Your task to perform on an android device: Open the stopwatch Image 0: 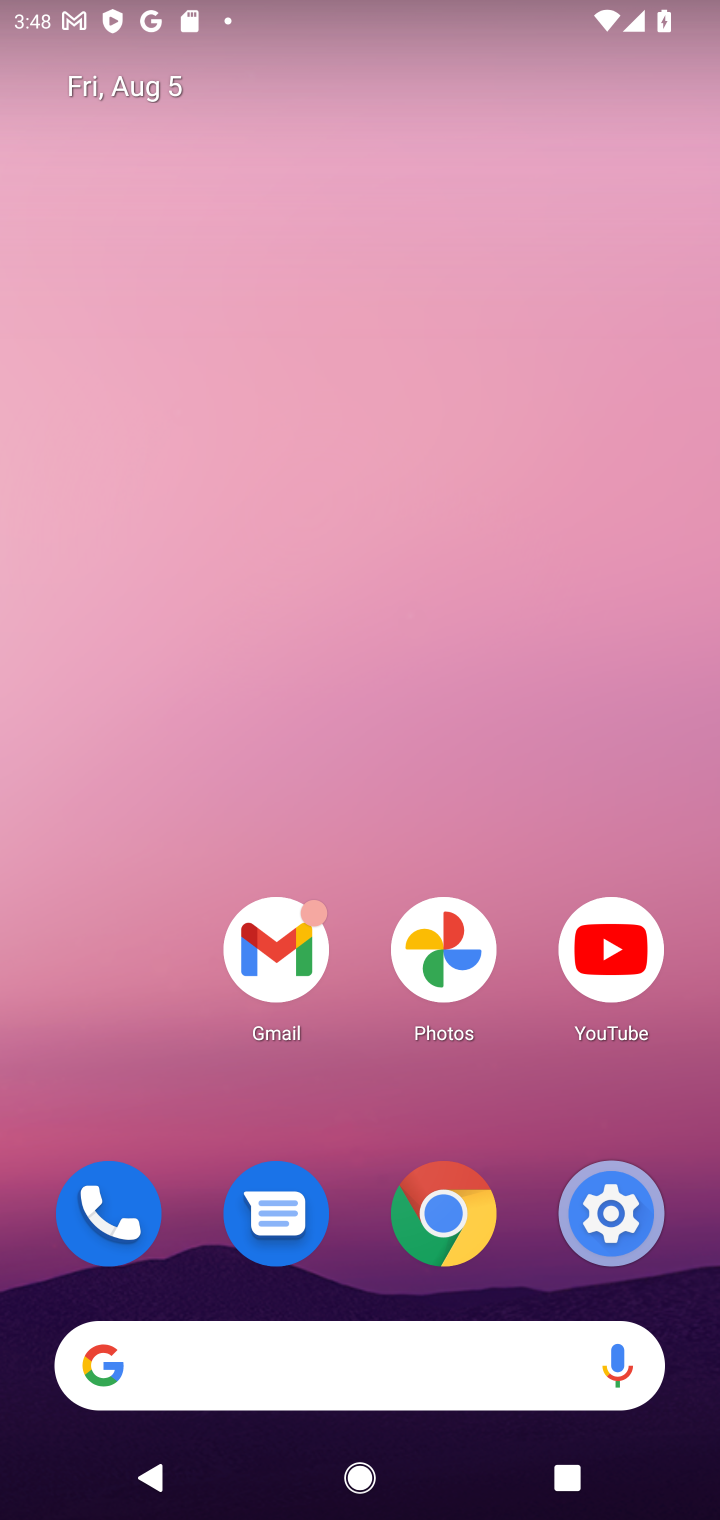
Step 0: drag from (215, 1301) to (308, 236)
Your task to perform on an android device: Open the stopwatch Image 1: 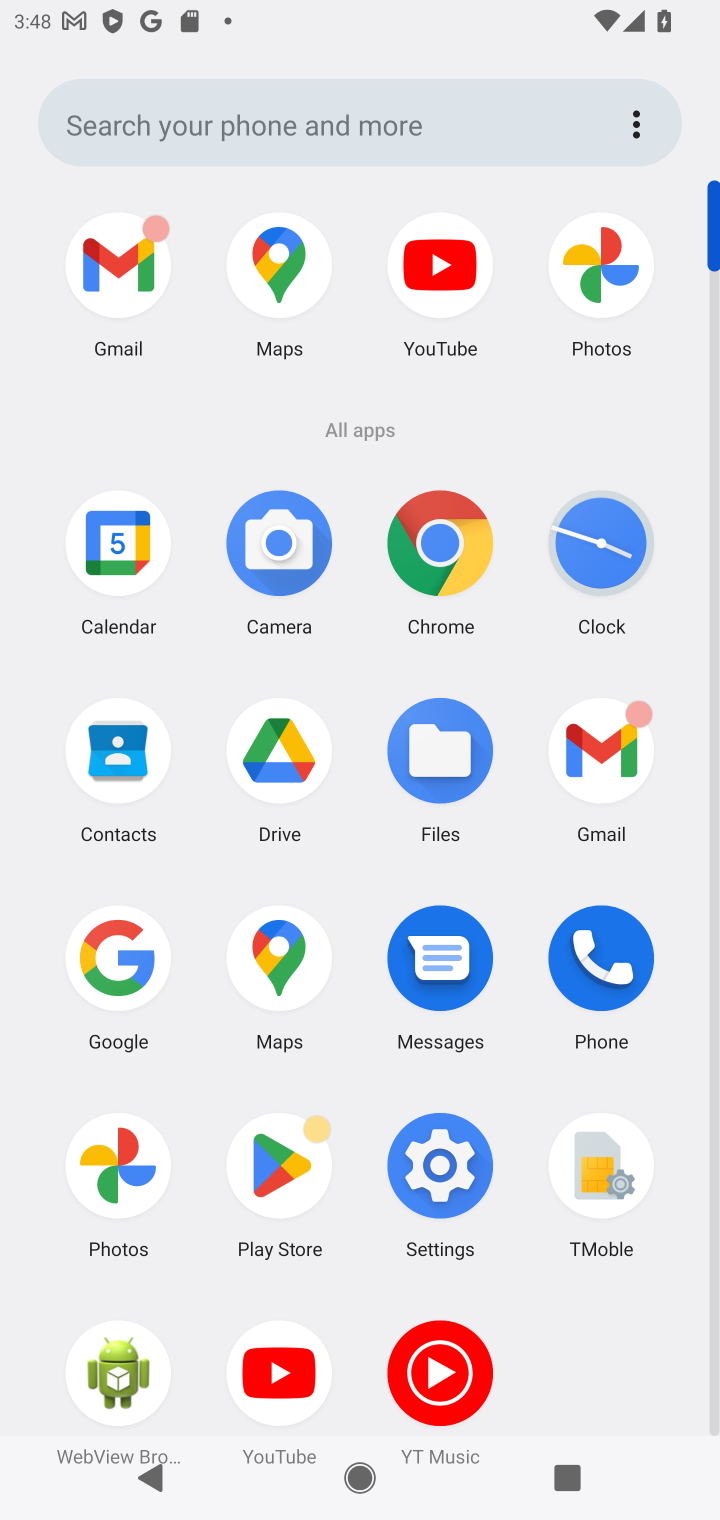
Step 1: click (619, 583)
Your task to perform on an android device: Open the stopwatch Image 2: 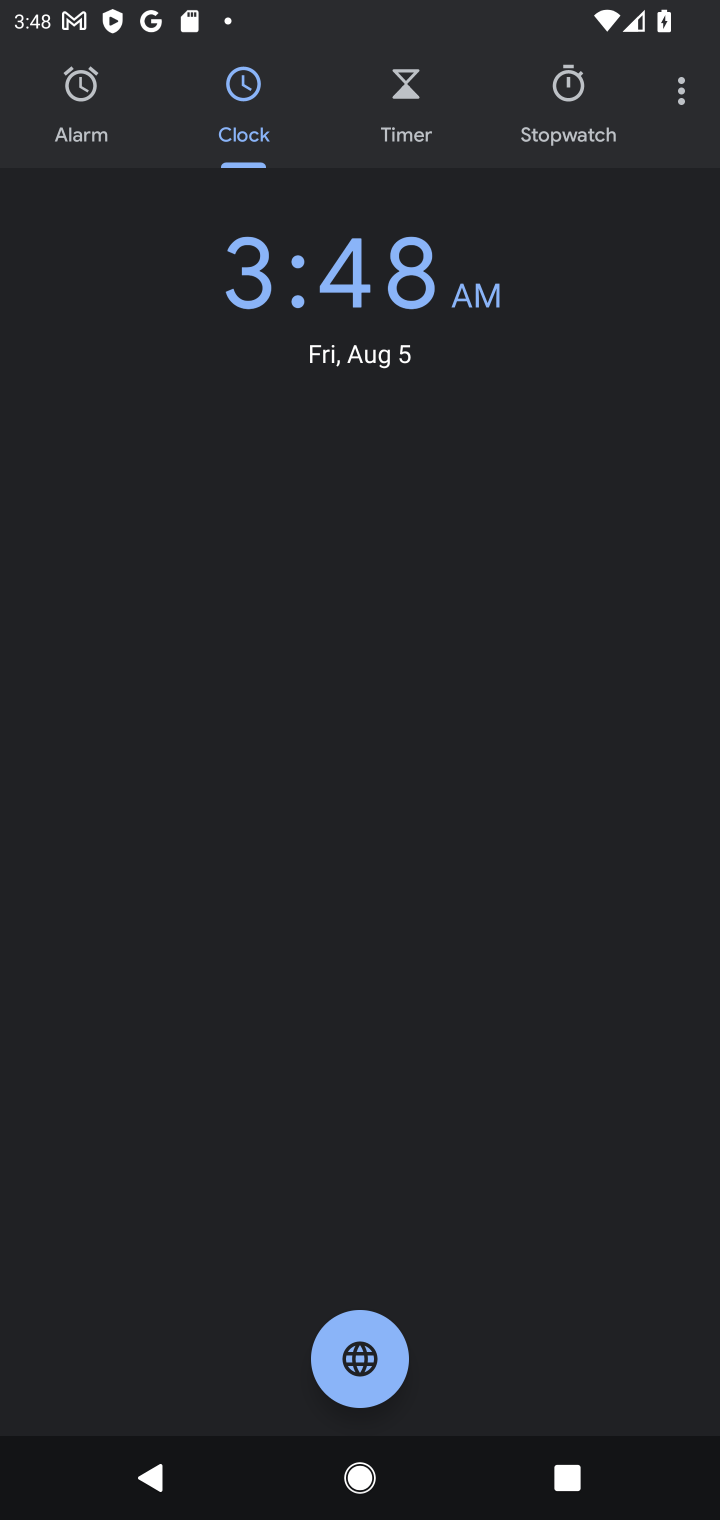
Step 2: click (701, 123)
Your task to perform on an android device: Open the stopwatch Image 3: 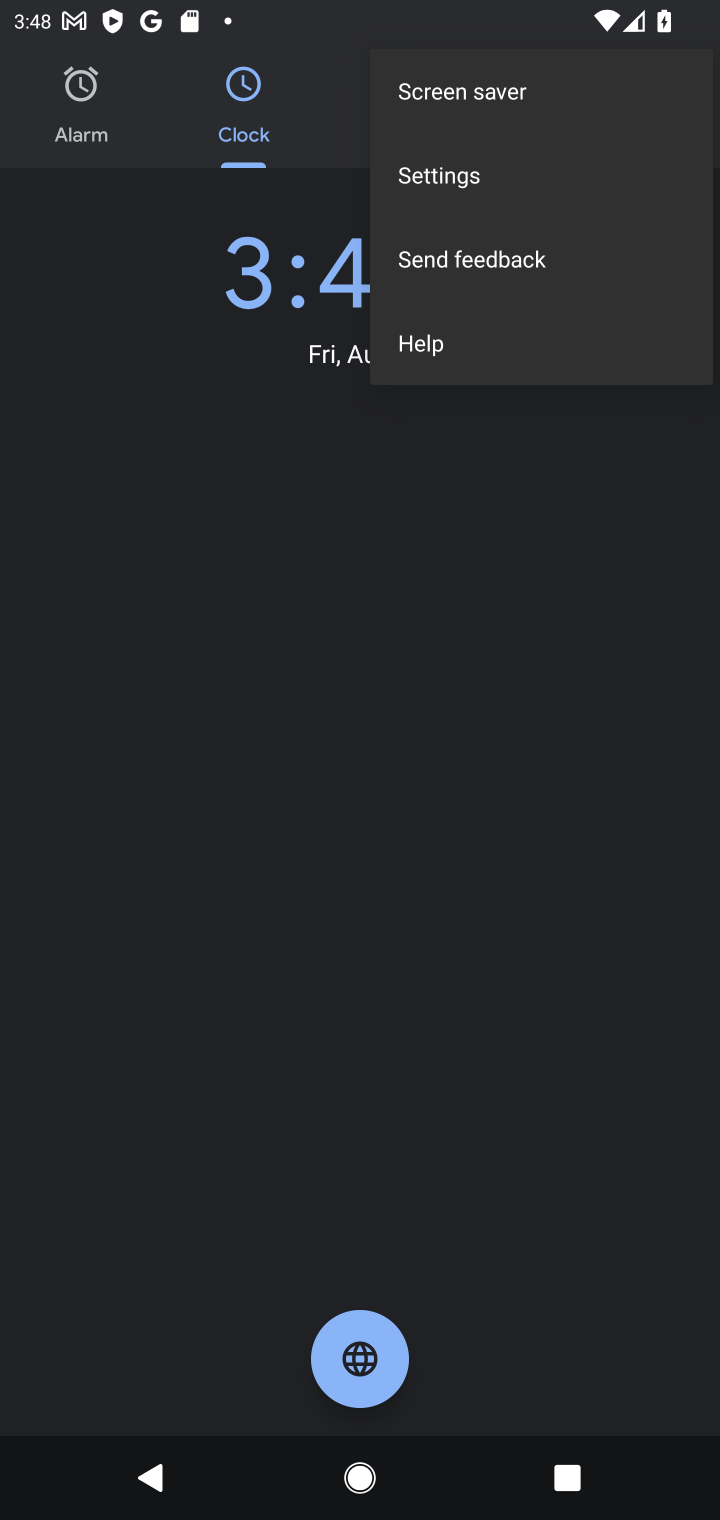
Step 3: click (430, 165)
Your task to perform on an android device: Open the stopwatch Image 4: 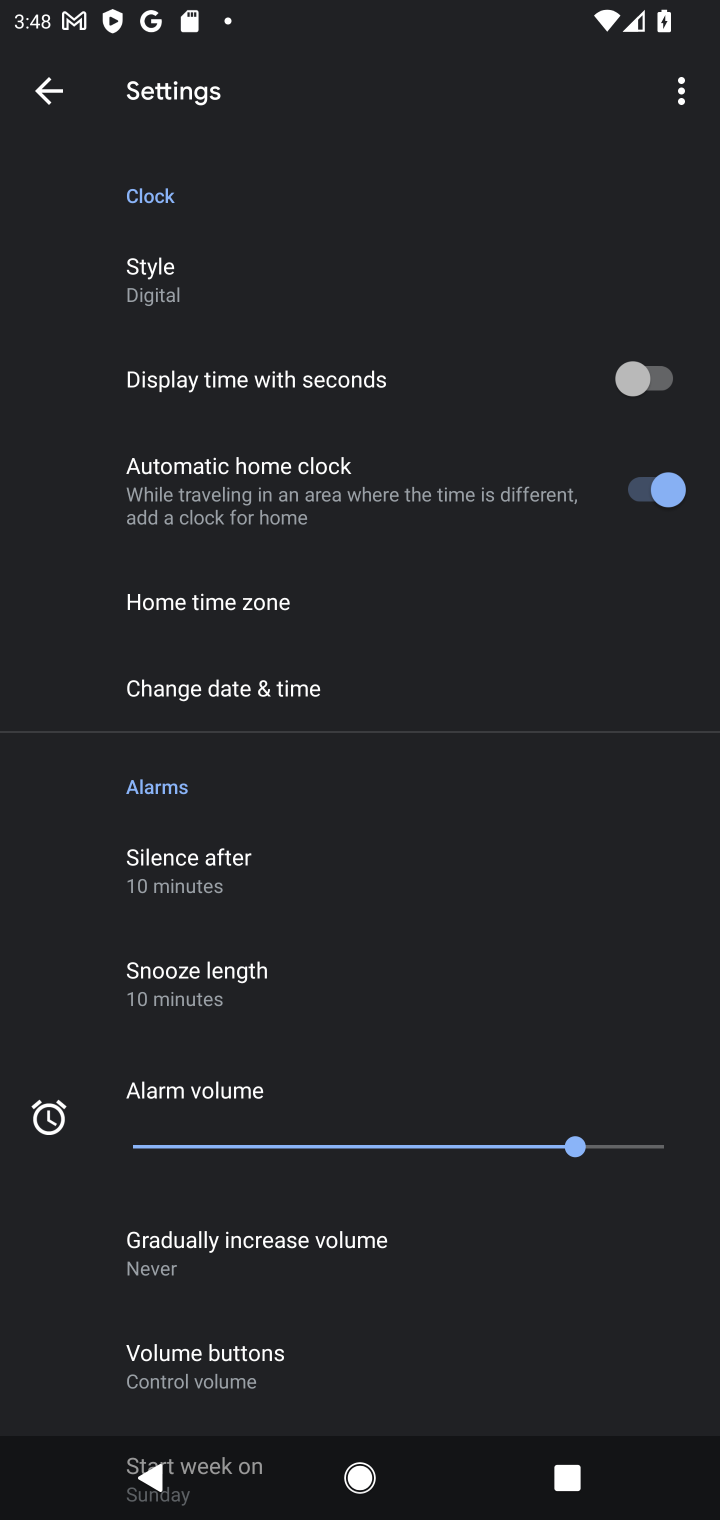
Step 4: click (59, 83)
Your task to perform on an android device: Open the stopwatch Image 5: 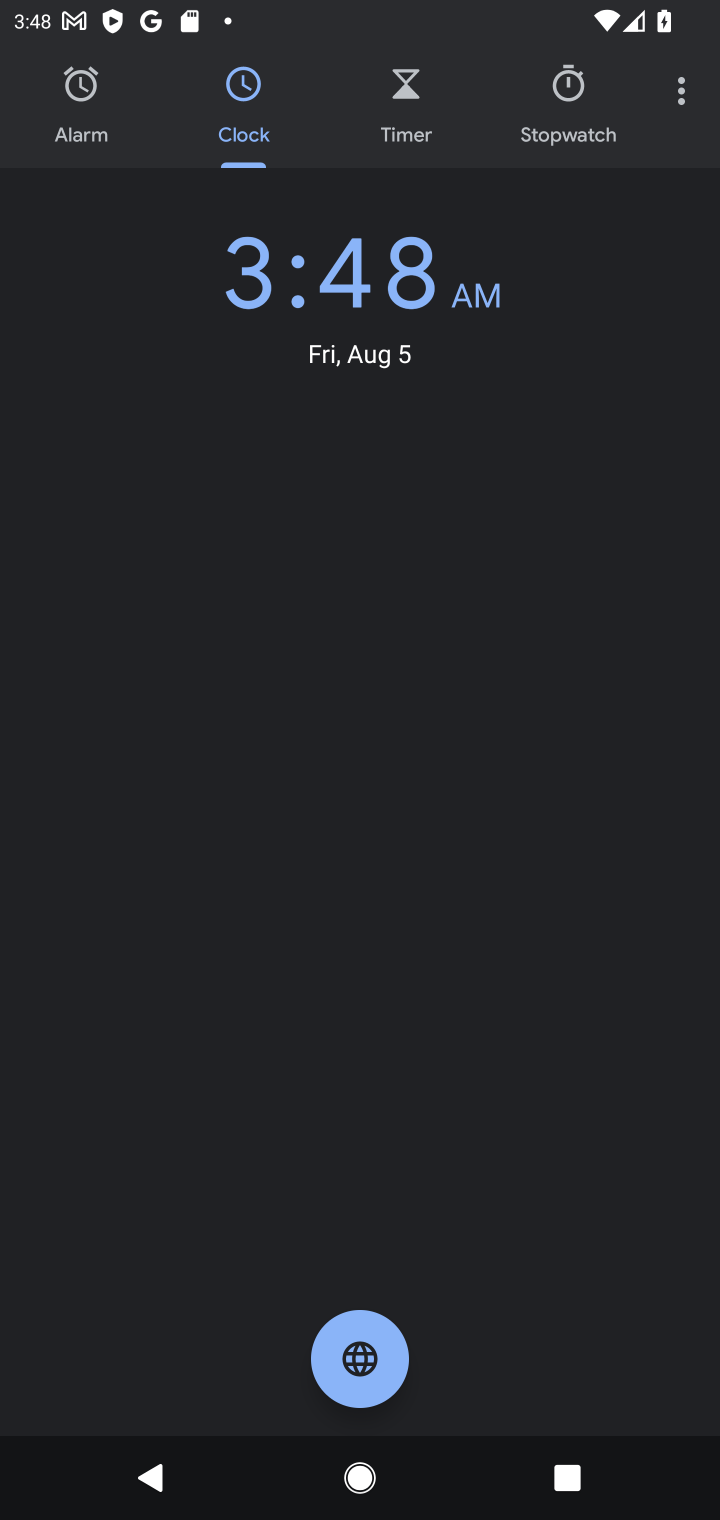
Step 5: click (556, 115)
Your task to perform on an android device: Open the stopwatch Image 6: 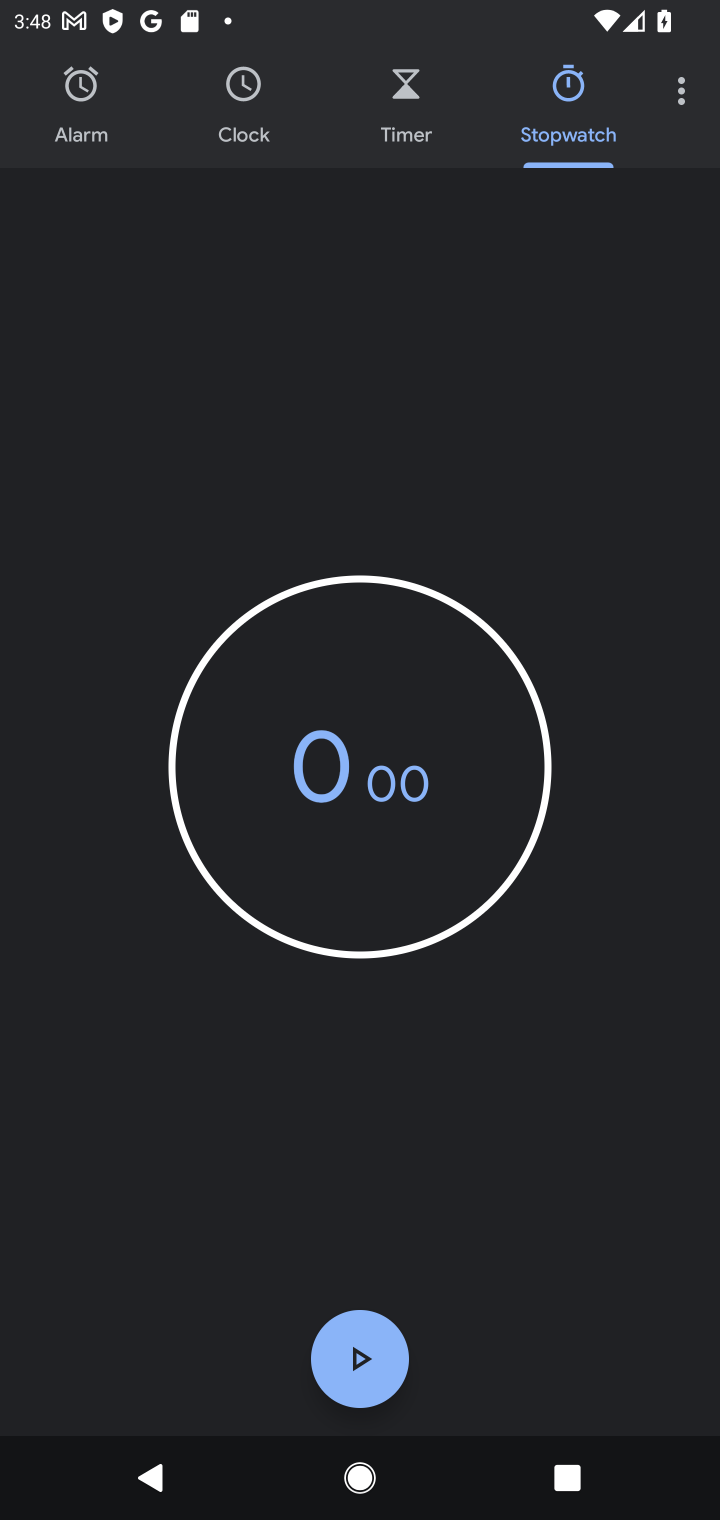
Step 6: task complete